Your task to perform on an android device: delete a single message in the gmail app Image 0: 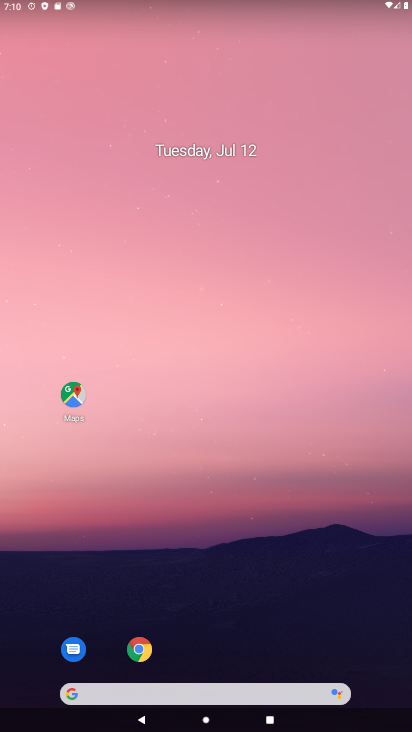
Step 0: drag from (207, 692) to (239, 156)
Your task to perform on an android device: delete a single message in the gmail app Image 1: 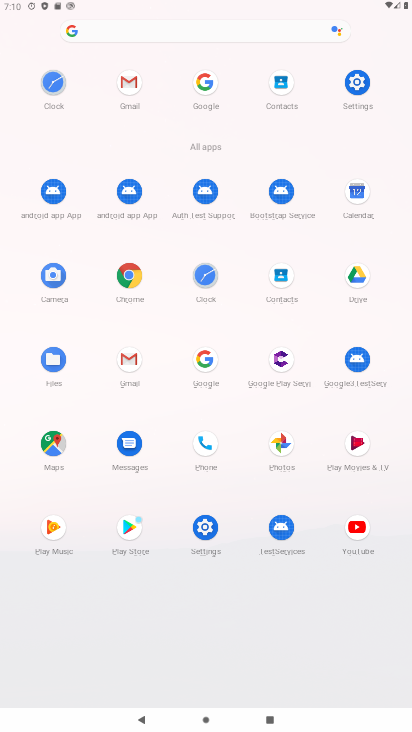
Step 1: click (127, 81)
Your task to perform on an android device: delete a single message in the gmail app Image 2: 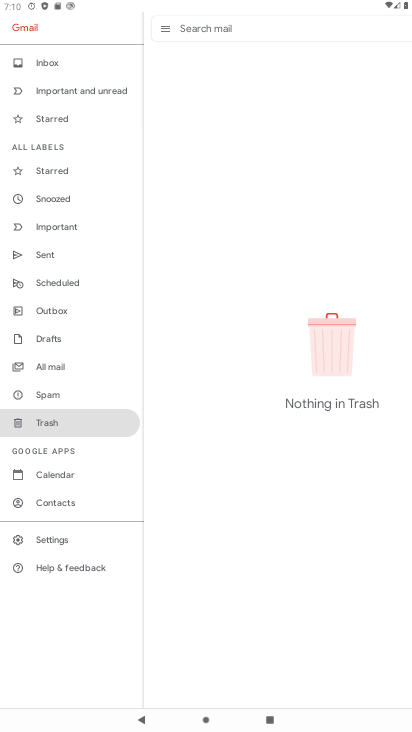
Step 2: click (54, 68)
Your task to perform on an android device: delete a single message in the gmail app Image 3: 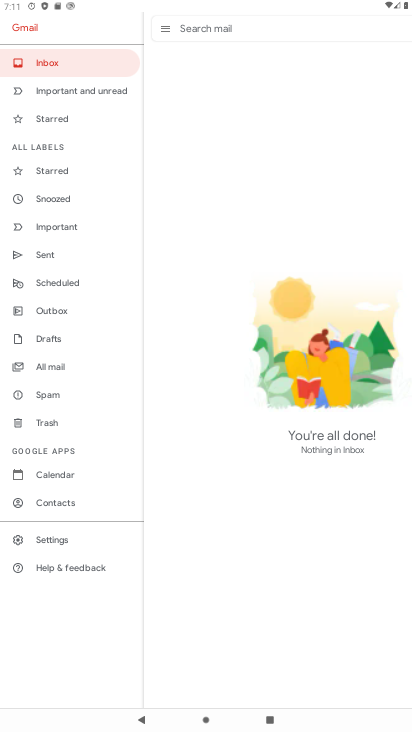
Step 3: click (52, 89)
Your task to perform on an android device: delete a single message in the gmail app Image 4: 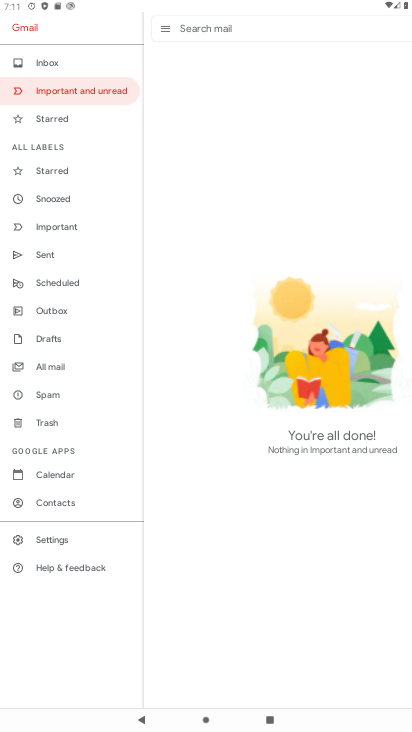
Step 4: click (41, 115)
Your task to perform on an android device: delete a single message in the gmail app Image 5: 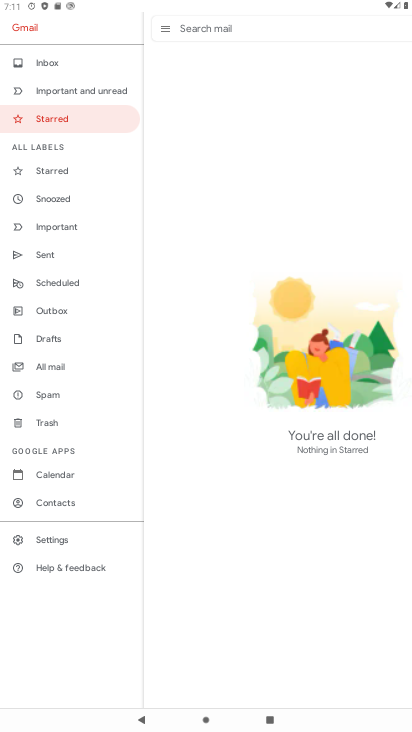
Step 5: click (43, 142)
Your task to perform on an android device: delete a single message in the gmail app Image 6: 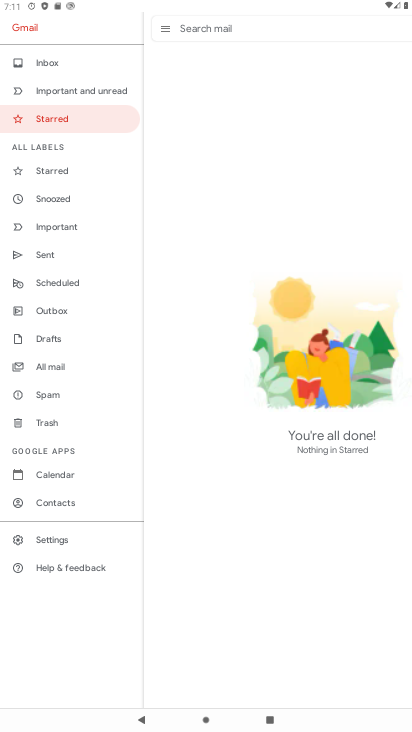
Step 6: click (48, 168)
Your task to perform on an android device: delete a single message in the gmail app Image 7: 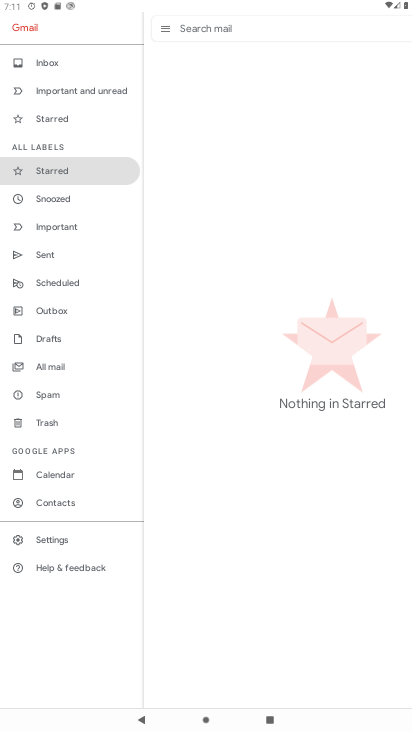
Step 7: click (52, 198)
Your task to perform on an android device: delete a single message in the gmail app Image 8: 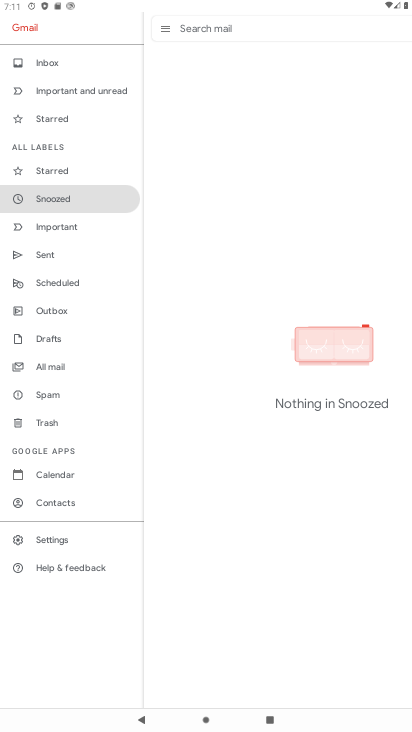
Step 8: click (53, 225)
Your task to perform on an android device: delete a single message in the gmail app Image 9: 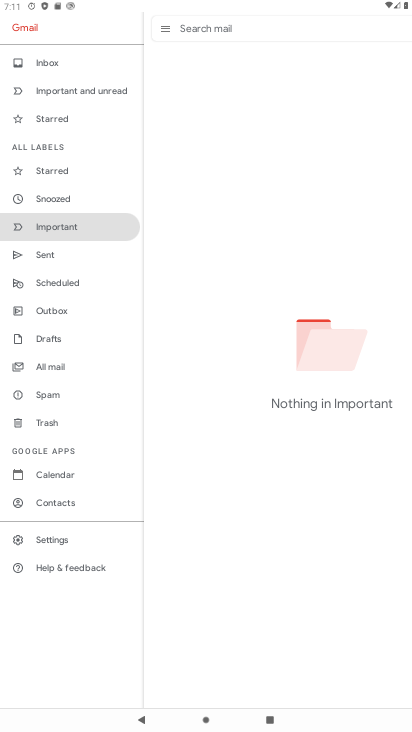
Step 9: click (54, 251)
Your task to perform on an android device: delete a single message in the gmail app Image 10: 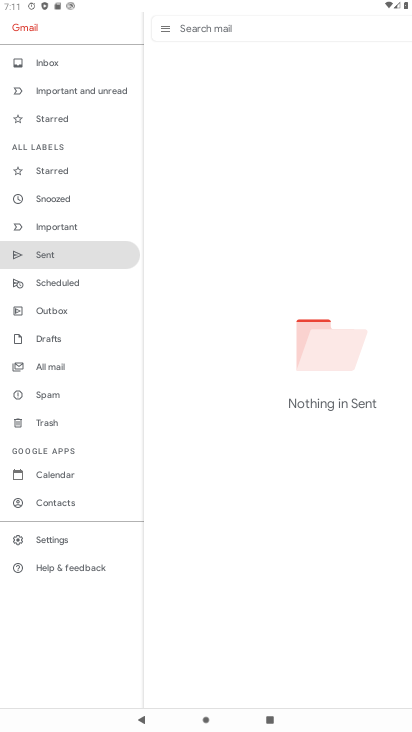
Step 10: click (52, 278)
Your task to perform on an android device: delete a single message in the gmail app Image 11: 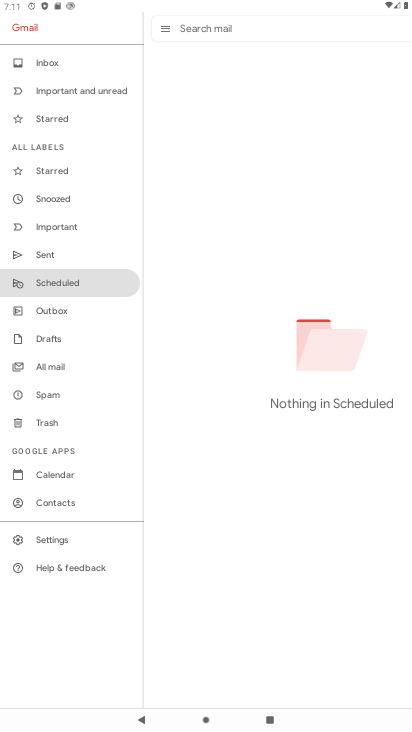
Step 11: click (46, 310)
Your task to perform on an android device: delete a single message in the gmail app Image 12: 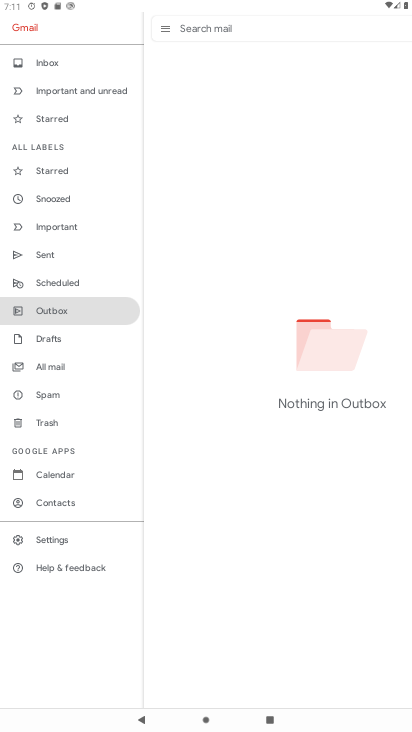
Step 12: click (43, 339)
Your task to perform on an android device: delete a single message in the gmail app Image 13: 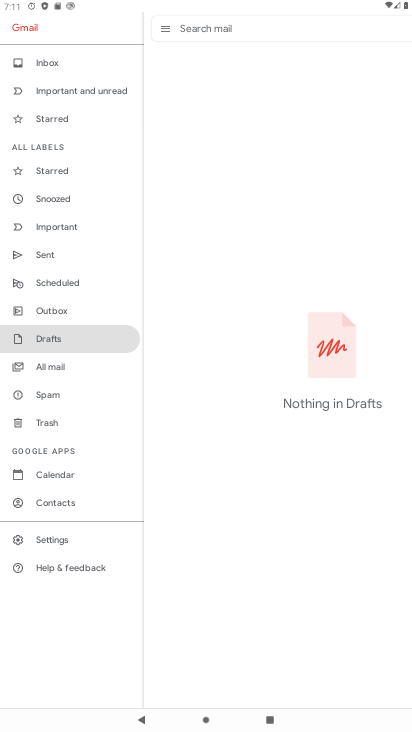
Step 13: click (47, 370)
Your task to perform on an android device: delete a single message in the gmail app Image 14: 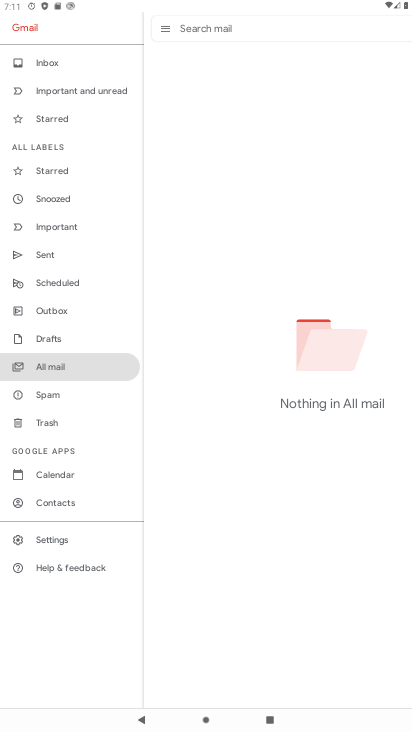
Step 14: click (55, 400)
Your task to perform on an android device: delete a single message in the gmail app Image 15: 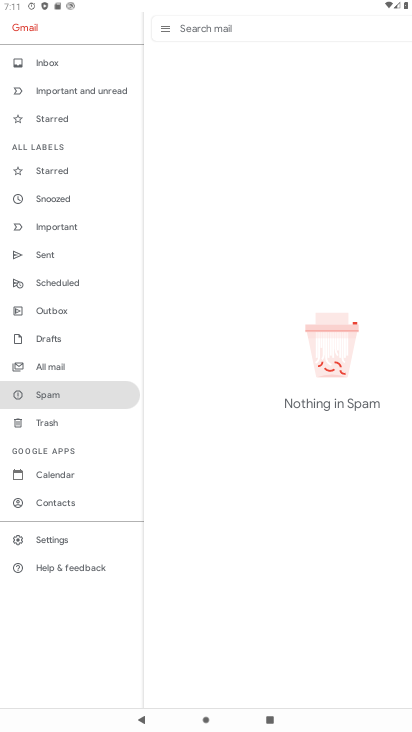
Step 15: click (58, 416)
Your task to perform on an android device: delete a single message in the gmail app Image 16: 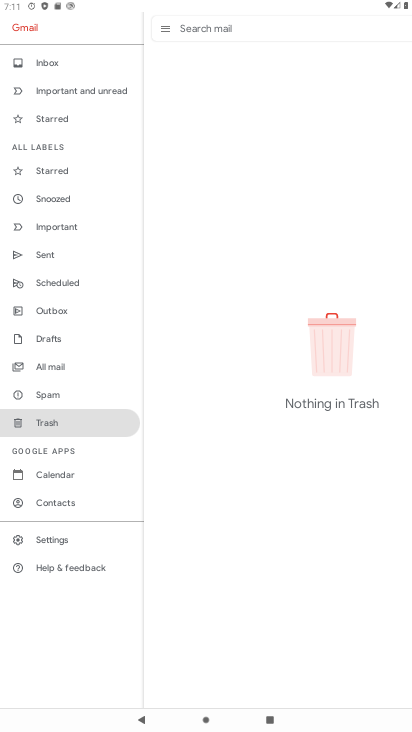
Step 16: click (64, 439)
Your task to perform on an android device: delete a single message in the gmail app Image 17: 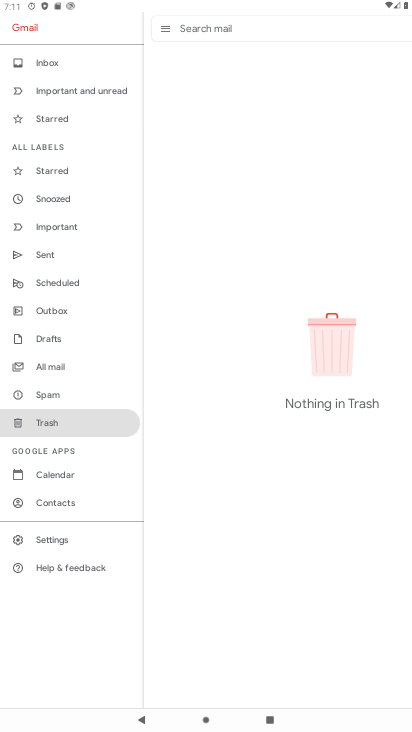
Step 17: task complete